Your task to perform on an android device: When is my next appointment? Image 0: 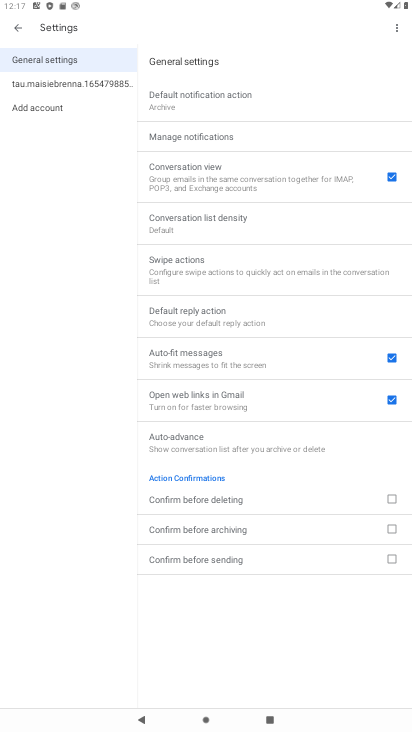
Step 0: press home button
Your task to perform on an android device: When is my next appointment? Image 1: 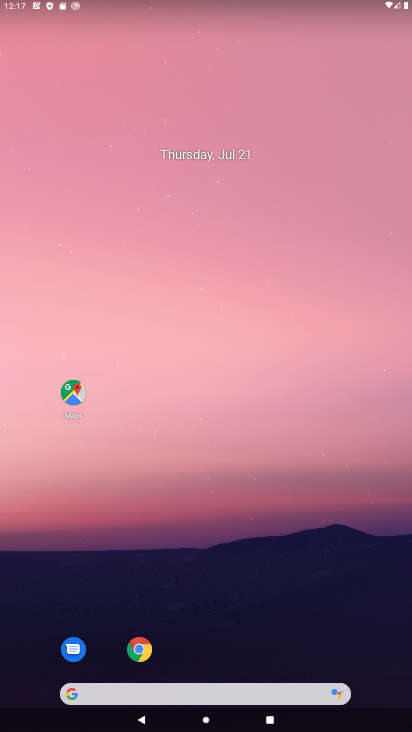
Step 1: drag from (385, 670) to (313, 94)
Your task to perform on an android device: When is my next appointment? Image 2: 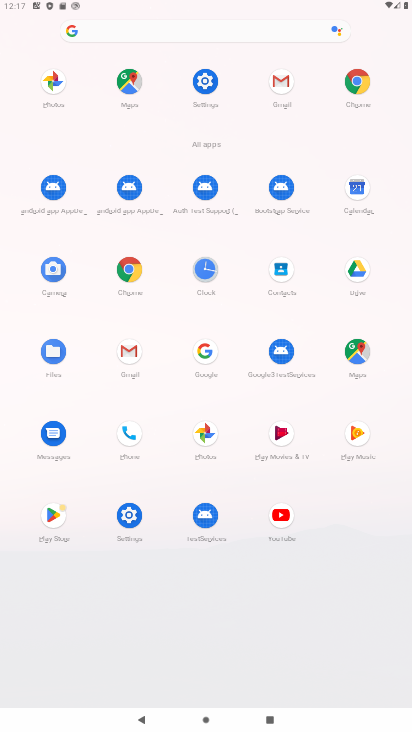
Step 2: click (355, 186)
Your task to perform on an android device: When is my next appointment? Image 3: 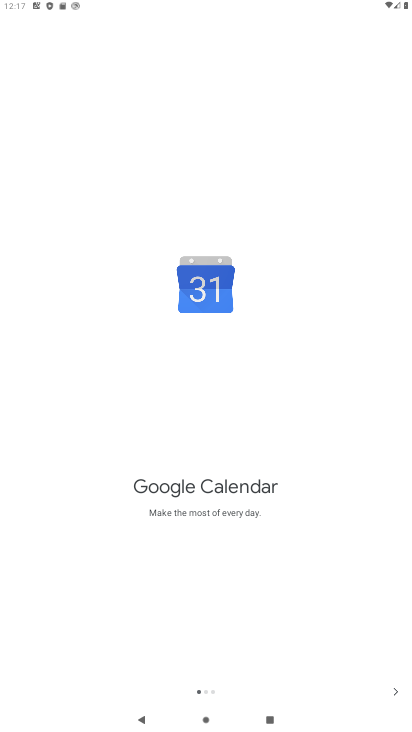
Step 3: click (395, 691)
Your task to perform on an android device: When is my next appointment? Image 4: 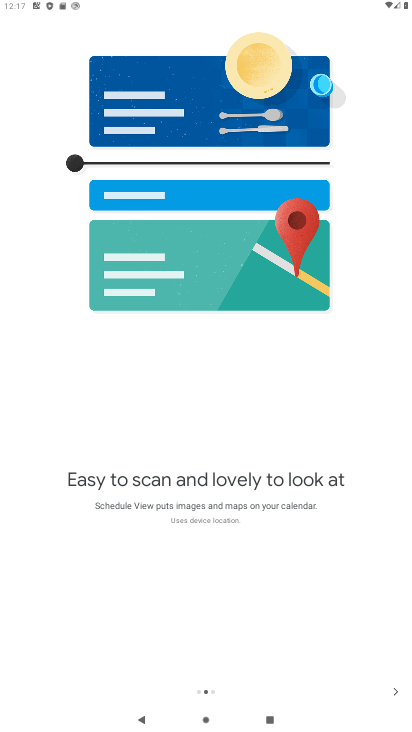
Step 4: click (395, 691)
Your task to perform on an android device: When is my next appointment? Image 5: 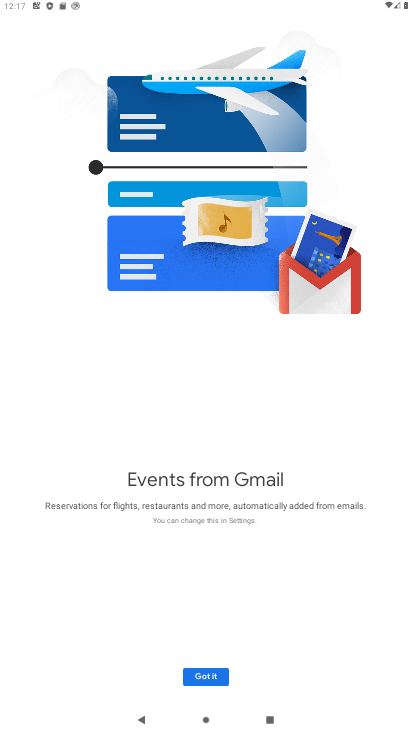
Step 5: click (203, 678)
Your task to perform on an android device: When is my next appointment? Image 6: 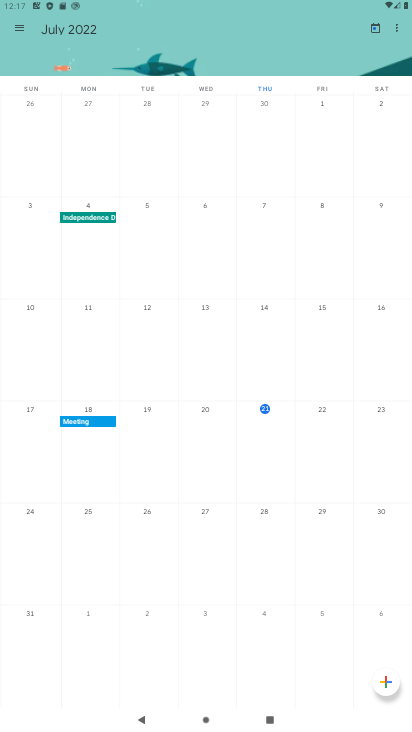
Step 6: click (16, 26)
Your task to perform on an android device: When is my next appointment? Image 7: 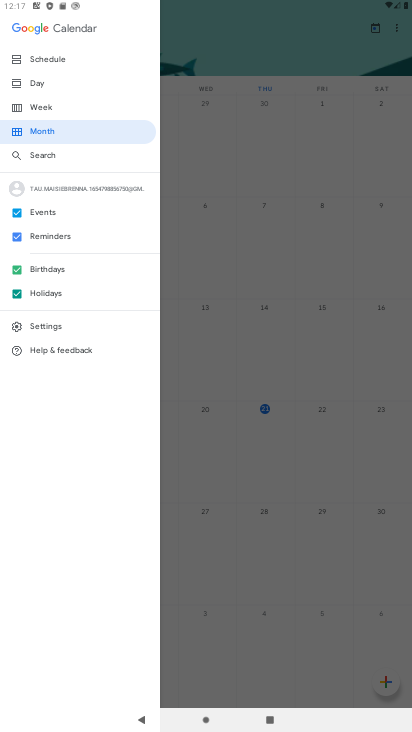
Step 7: click (46, 61)
Your task to perform on an android device: When is my next appointment? Image 8: 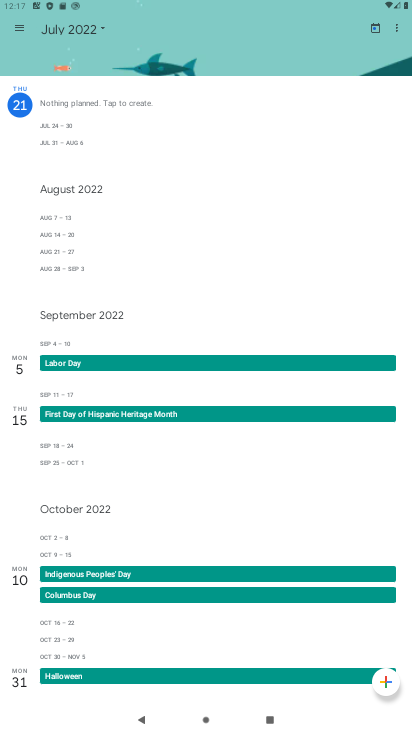
Step 8: task complete